Your task to perform on an android device: Open calendar and show me the third week of next month Image 0: 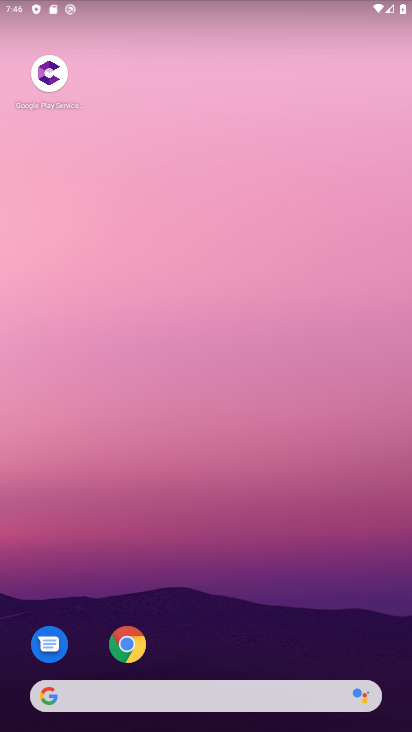
Step 0: drag from (219, 534) to (219, 206)
Your task to perform on an android device: Open calendar and show me the third week of next month Image 1: 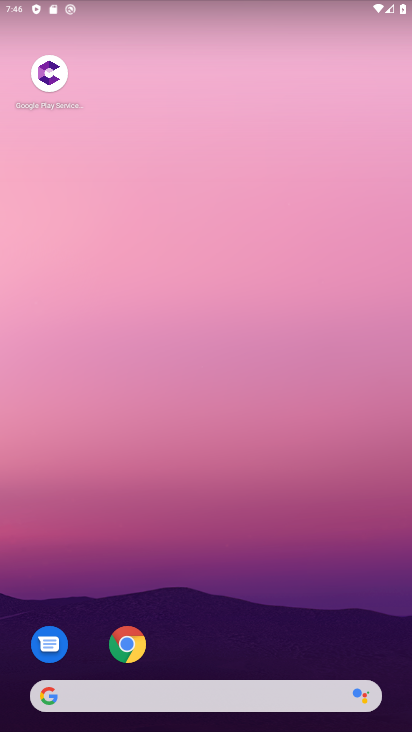
Step 1: drag from (226, 588) to (200, 83)
Your task to perform on an android device: Open calendar and show me the third week of next month Image 2: 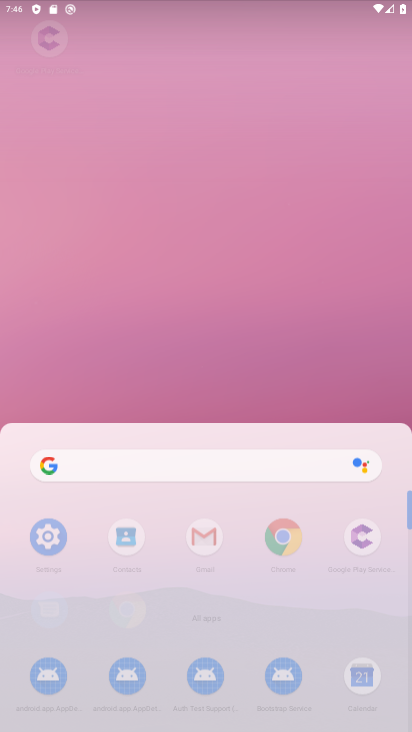
Step 2: drag from (225, 411) to (205, 188)
Your task to perform on an android device: Open calendar and show me the third week of next month Image 3: 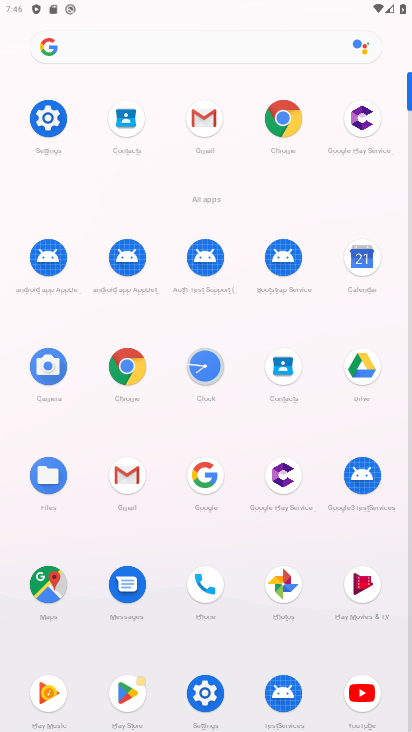
Step 3: click (360, 259)
Your task to perform on an android device: Open calendar and show me the third week of next month Image 4: 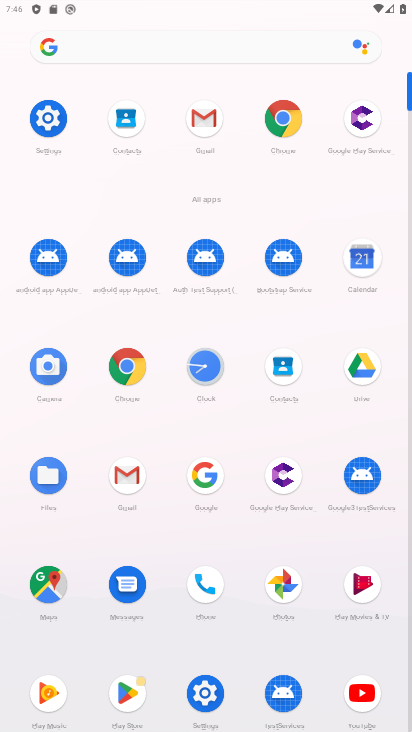
Step 4: click (361, 259)
Your task to perform on an android device: Open calendar and show me the third week of next month Image 5: 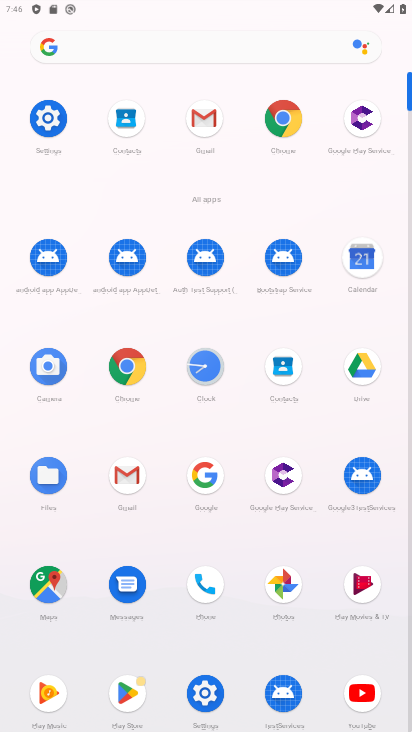
Step 5: click (365, 260)
Your task to perform on an android device: Open calendar and show me the third week of next month Image 6: 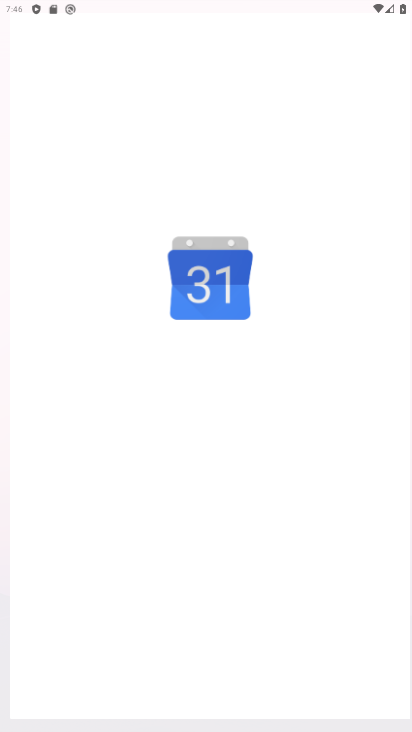
Step 6: click (372, 259)
Your task to perform on an android device: Open calendar and show me the third week of next month Image 7: 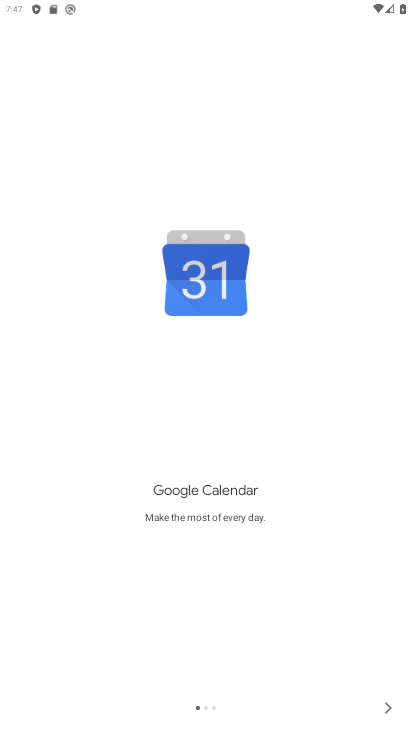
Step 7: click (393, 707)
Your task to perform on an android device: Open calendar and show me the third week of next month Image 8: 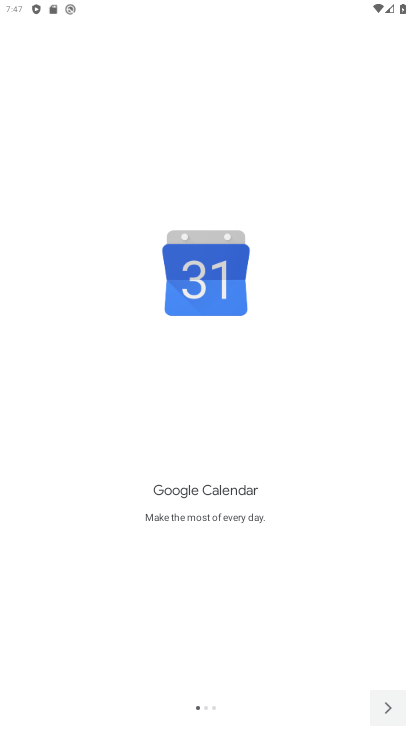
Step 8: click (393, 707)
Your task to perform on an android device: Open calendar and show me the third week of next month Image 9: 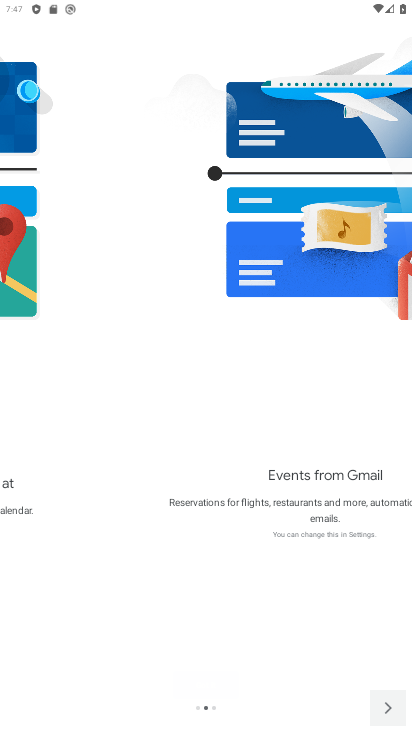
Step 9: click (393, 712)
Your task to perform on an android device: Open calendar and show me the third week of next month Image 10: 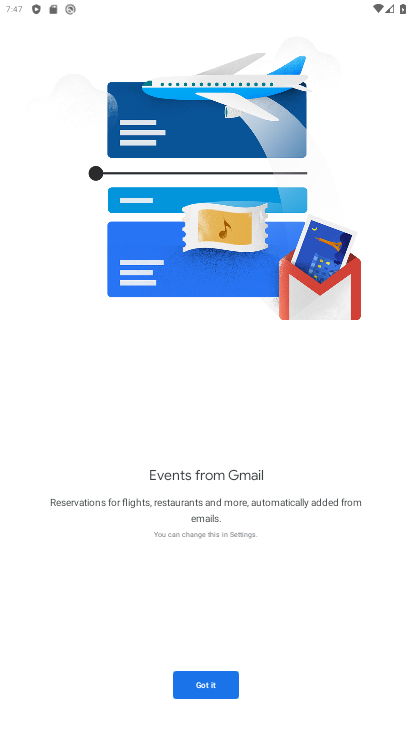
Step 10: click (176, 683)
Your task to perform on an android device: Open calendar and show me the third week of next month Image 11: 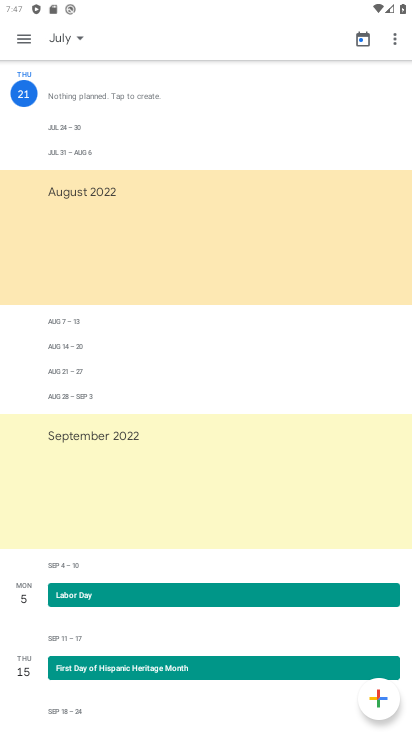
Step 11: click (79, 31)
Your task to perform on an android device: Open calendar and show me the third week of next month Image 12: 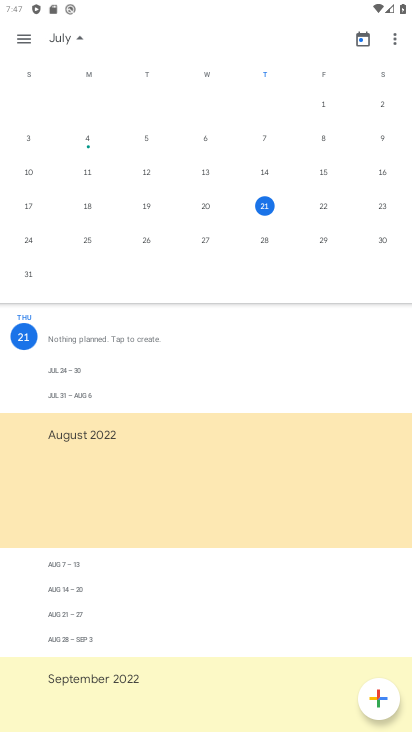
Step 12: drag from (345, 207) to (12, 209)
Your task to perform on an android device: Open calendar and show me the third week of next month Image 13: 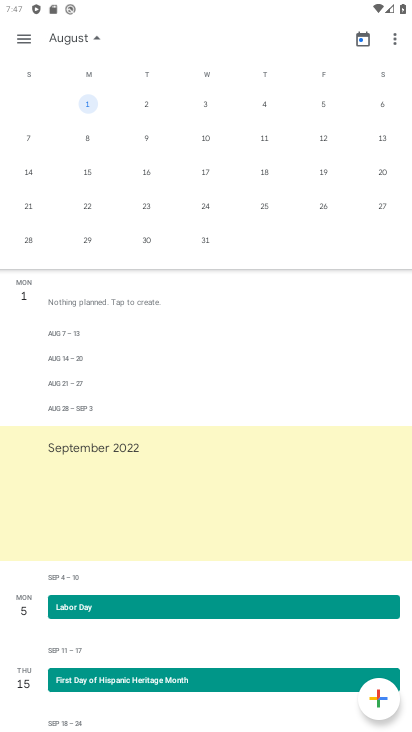
Step 13: click (149, 175)
Your task to perform on an android device: Open calendar and show me the third week of next month Image 14: 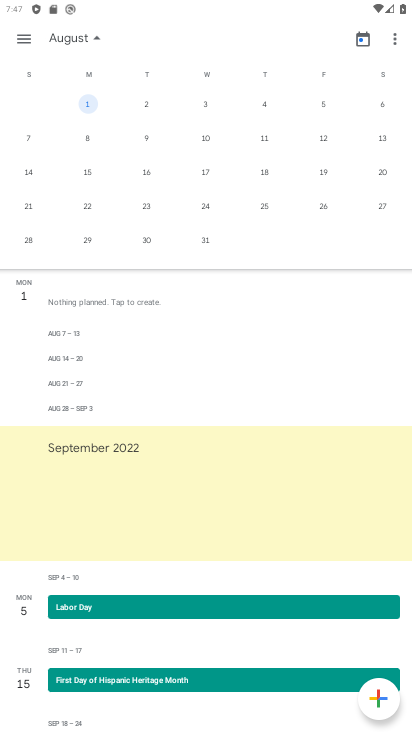
Step 14: click (149, 175)
Your task to perform on an android device: Open calendar and show me the third week of next month Image 15: 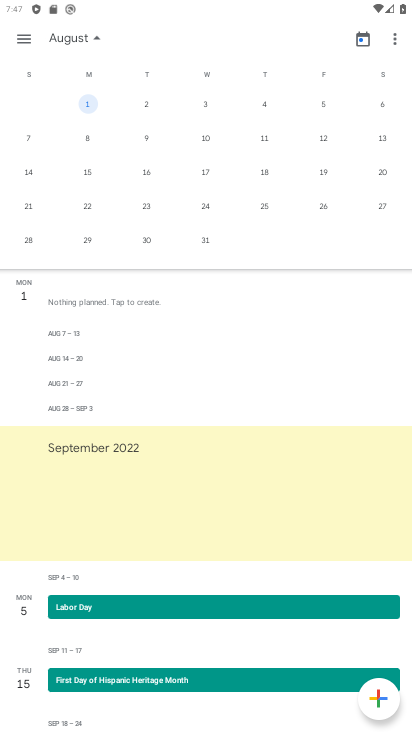
Step 15: click (146, 176)
Your task to perform on an android device: Open calendar and show me the third week of next month Image 16: 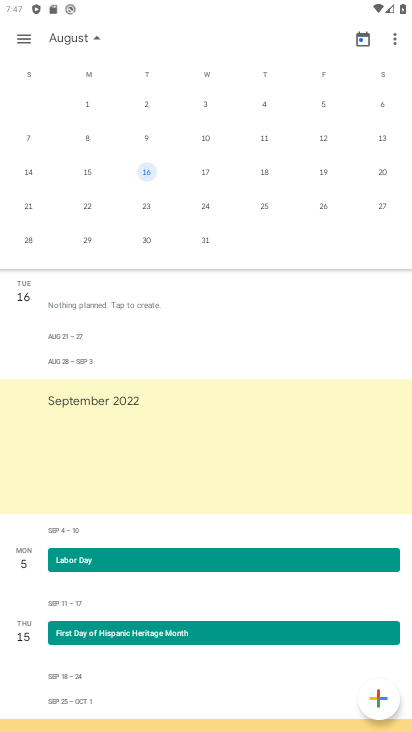
Step 16: click (146, 176)
Your task to perform on an android device: Open calendar and show me the third week of next month Image 17: 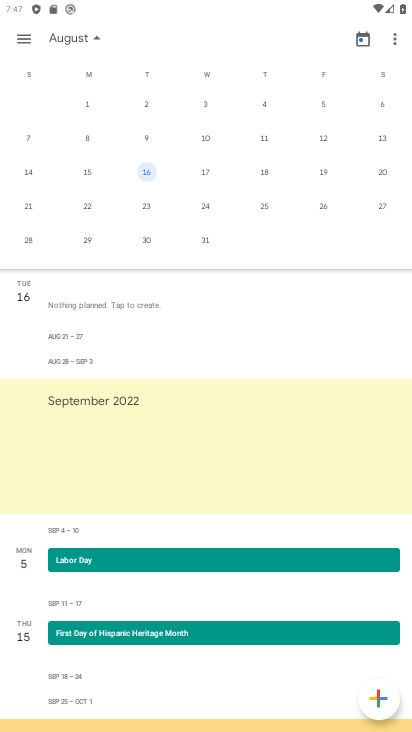
Step 17: click (145, 175)
Your task to perform on an android device: Open calendar and show me the third week of next month Image 18: 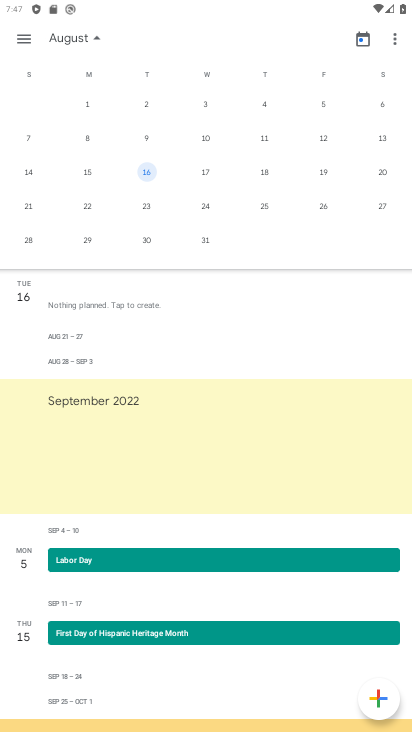
Step 18: task complete